Your task to perform on an android device: Open Google Chrome and open the bookmarks view Image 0: 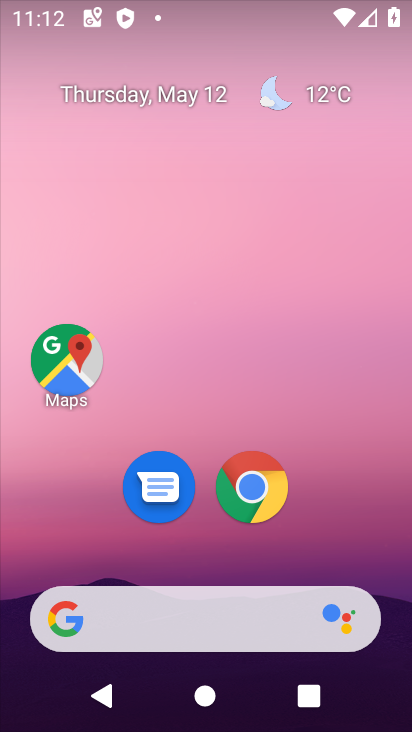
Step 0: click (265, 486)
Your task to perform on an android device: Open Google Chrome and open the bookmarks view Image 1: 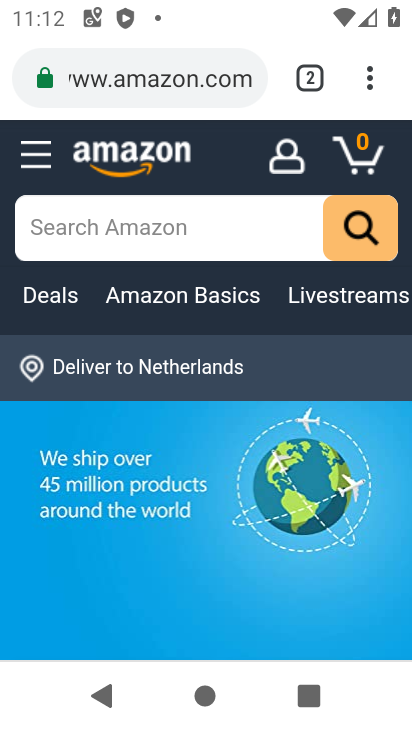
Step 1: click (369, 78)
Your task to perform on an android device: Open Google Chrome and open the bookmarks view Image 2: 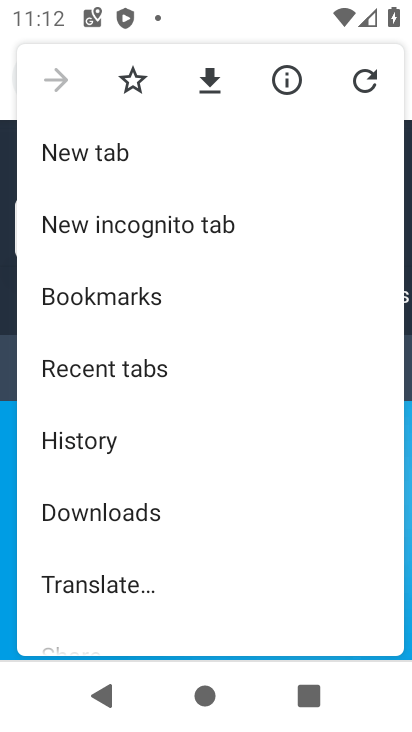
Step 2: click (123, 303)
Your task to perform on an android device: Open Google Chrome and open the bookmarks view Image 3: 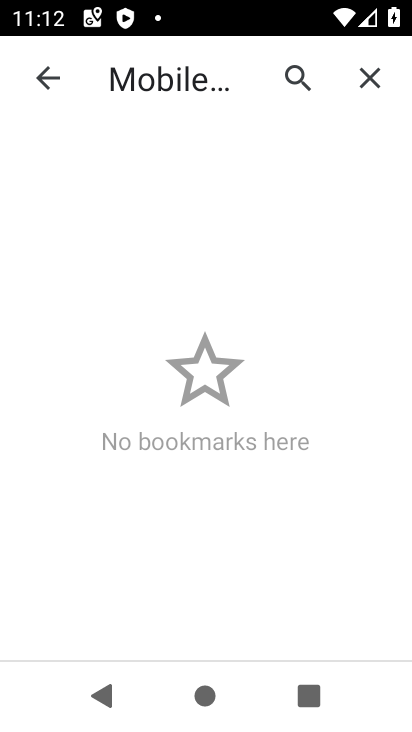
Step 3: task complete